Your task to perform on an android device: Open battery settings Image 0: 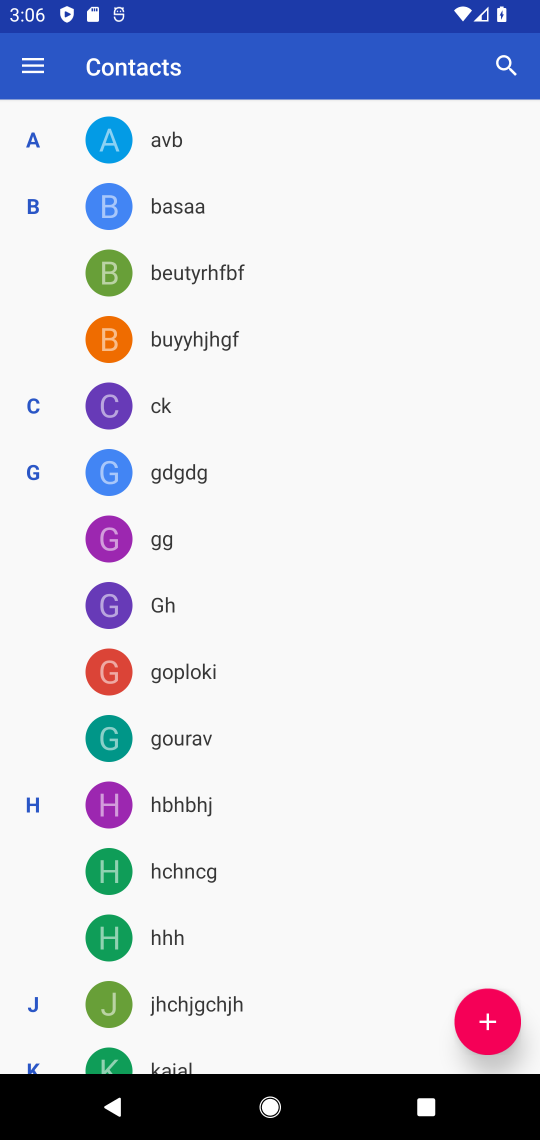
Step 0: press home button
Your task to perform on an android device: Open battery settings Image 1: 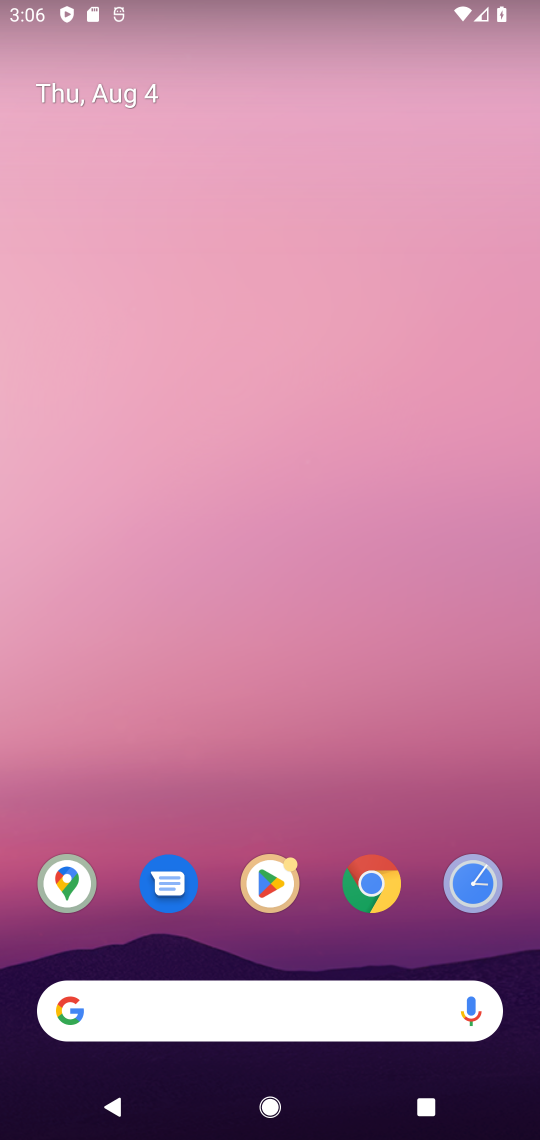
Step 1: drag from (321, 751) to (312, 31)
Your task to perform on an android device: Open battery settings Image 2: 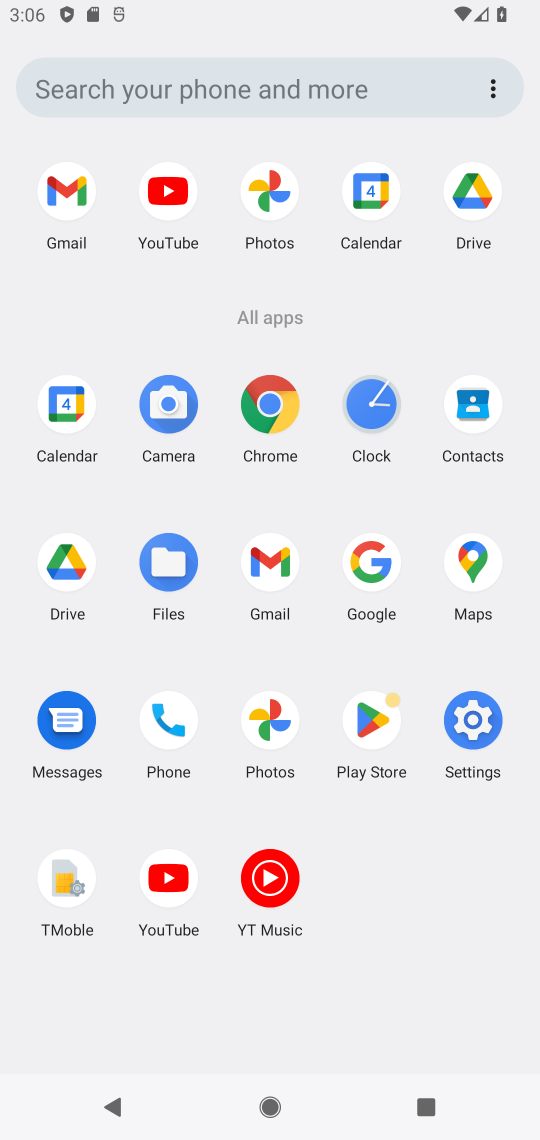
Step 2: click (479, 718)
Your task to perform on an android device: Open battery settings Image 3: 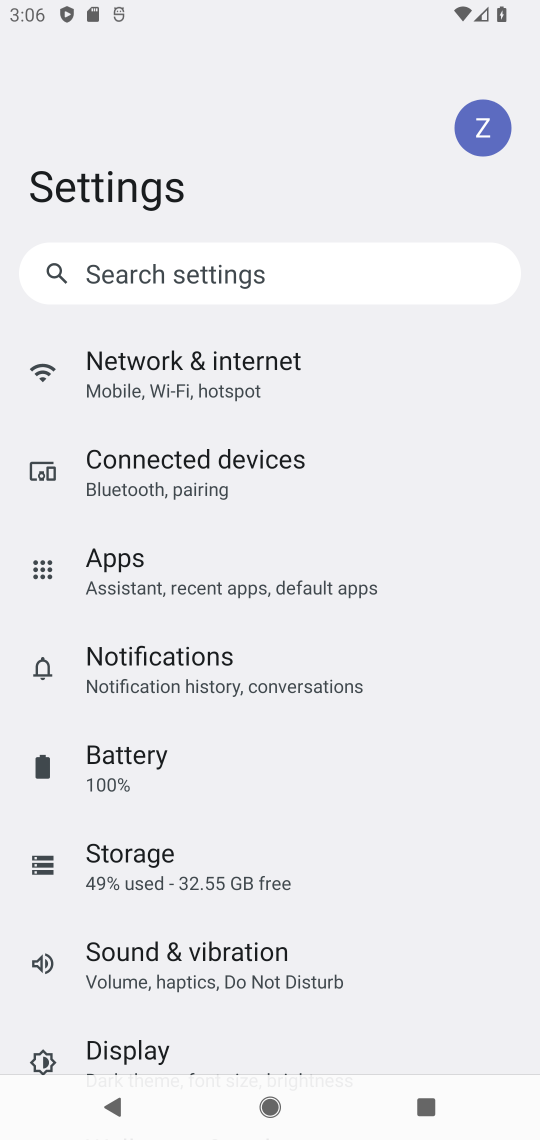
Step 3: click (163, 773)
Your task to perform on an android device: Open battery settings Image 4: 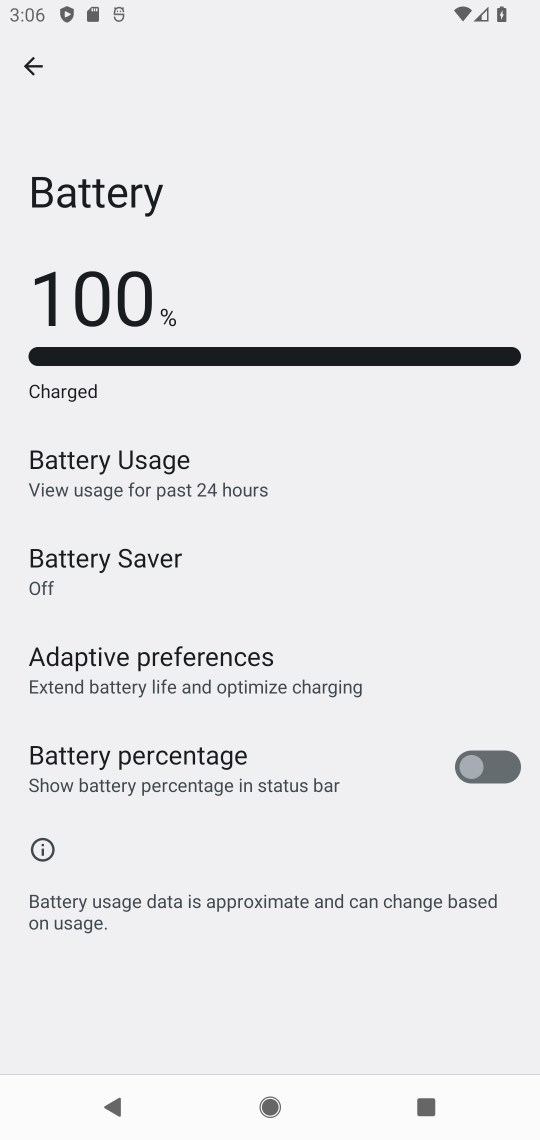
Step 4: task complete